Your task to perform on an android device: Empty the shopping cart on amazon. Search for razer deathadder on amazon, select the first entry, add it to the cart, then select checkout. Image 0: 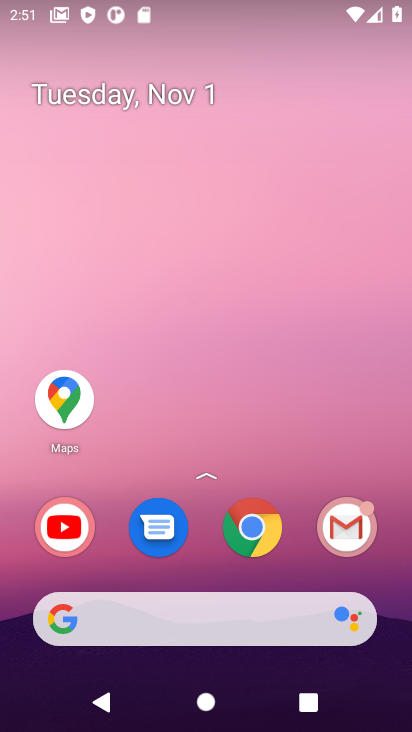
Step 0: click (219, 619)
Your task to perform on an android device: Empty the shopping cart on amazon. Search for razer deathadder on amazon, select the first entry, add it to the cart, then select checkout. Image 1: 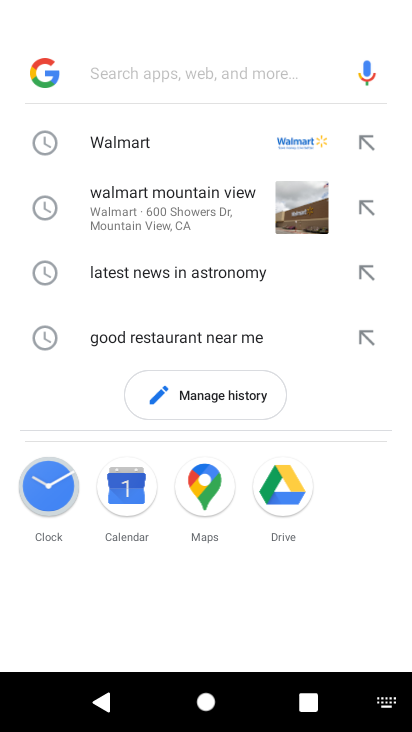
Step 1: type "amazon"
Your task to perform on an android device: Empty the shopping cart on amazon. Search for razer deathadder on amazon, select the first entry, add it to the cart, then select checkout. Image 2: 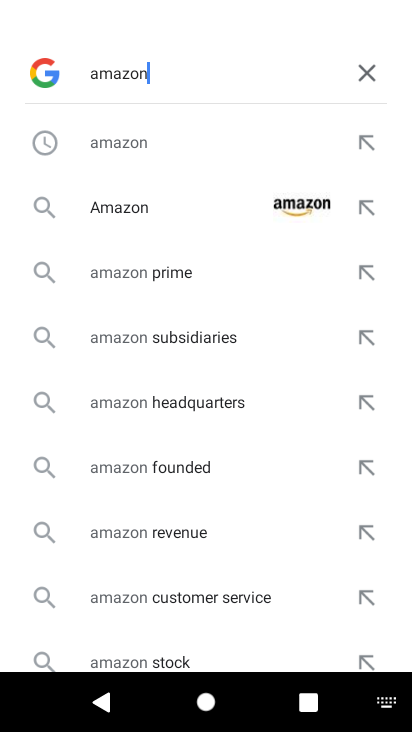
Step 2: click (229, 214)
Your task to perform on an android device: Empty the shopping cart on amazon. Search for razer deathadder on amazon, select the first entry, add it to the cart, then select checkout. Image 3: 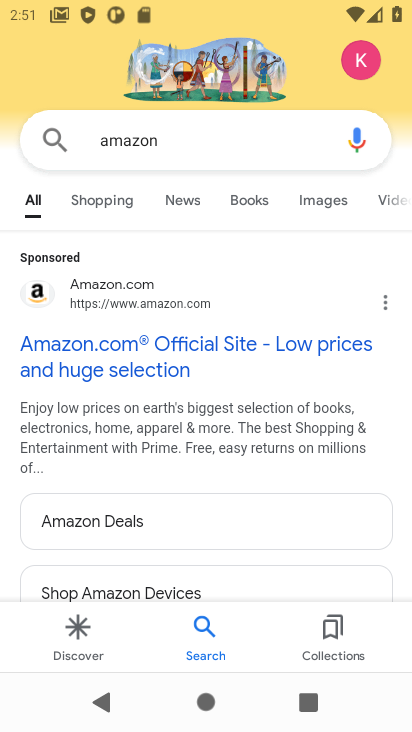
Step 3: click (109, 351)
Your task to perform on an android device: Empty the shopping cart on amazon. Search for razer deathadder on amazon, select the first entry, add it to the cart, then select checkout. Image 4: 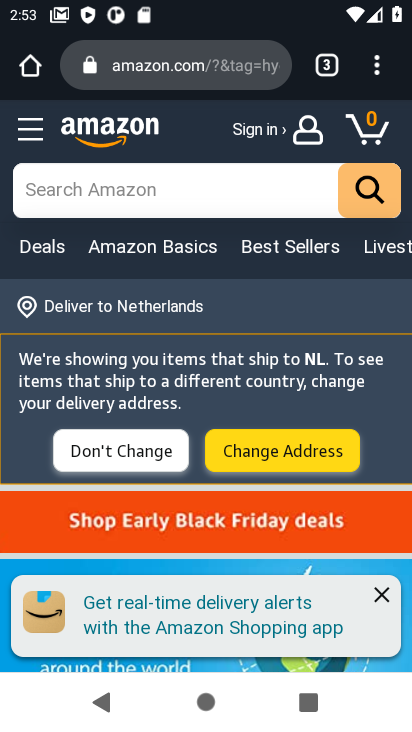
Step 4: click (199, 188)
Your task to perform on an android device: Empty the shopping cart on amazon. Search for razer deathadder on amazon, select the first entry, add it to the cart, then select checkout. Image 5: 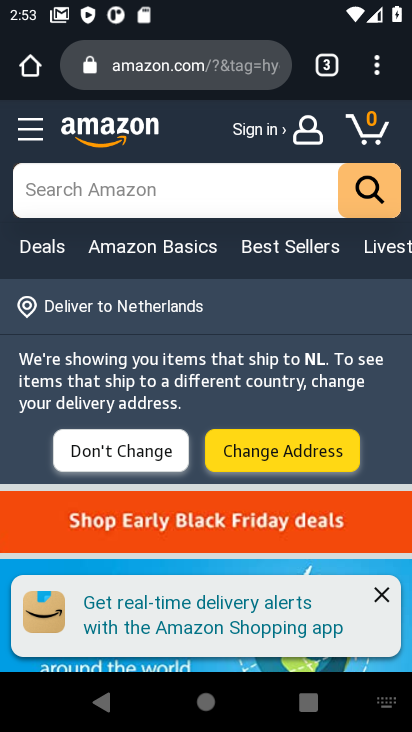
Step 5: type "razer deathadder"
Your task to perform on an android device: Empty the shopping cart on amazon. Search for razer deathadder on amazon, select the first entry, add it to the cart, then select checkout. Image 6: 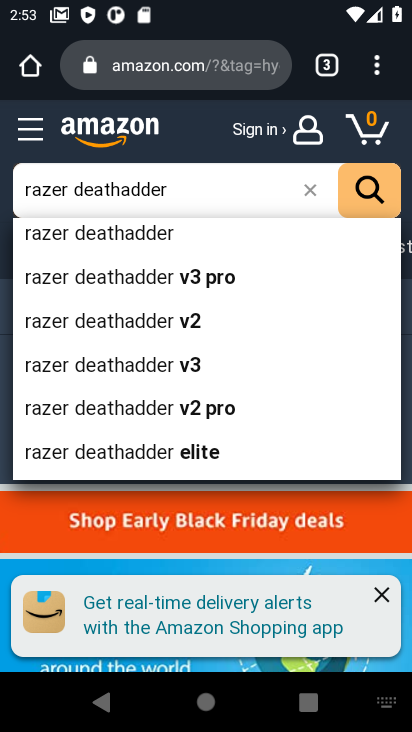
Step 6: click (119, 245)
Your task to perform on an android device: Empty the shopping cart on amazon. Search for razer deathadder on amazon, select the first entry, add it to the cart, then select checkout. Image 7: 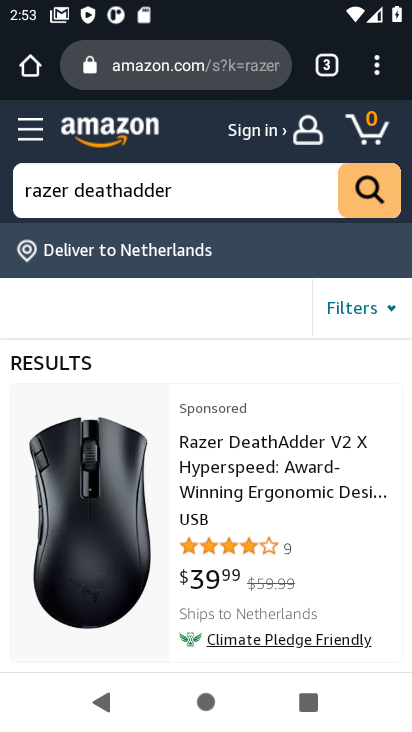
Step 7: drag from (290, 564) to (306, 395)
Your task to perform on an android device: Empty the shopping cart on amazon. Search for razer deathadder on amazon, select the first entry, add it to the cart, then select checkout. Image 8: 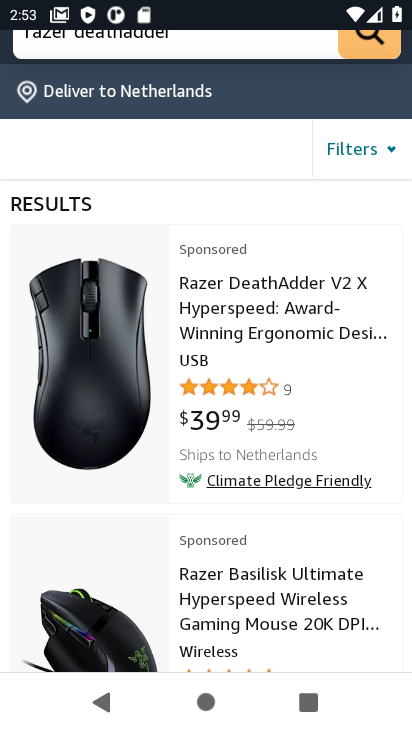
Step 8: click (258, 313)
Your task to perform on an android device: Empty the shopping cart on amazon. Search for razer deathadder on amazon, select the first entry, add it to the cart, then select checkout. Image 9: 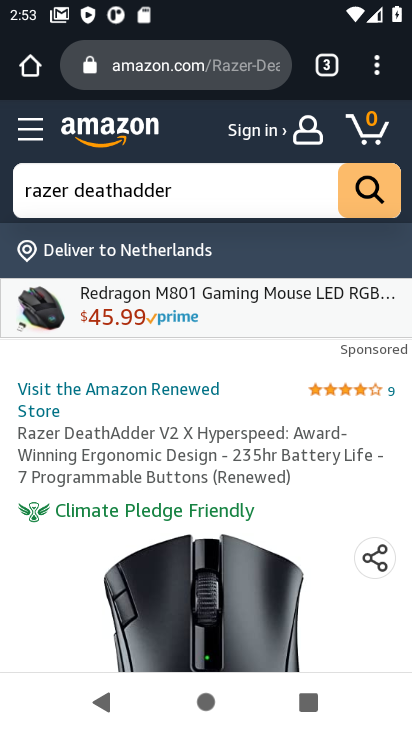
Step 9: drag from (241, 517) to (234, 356)
Your task to perform on an android device: Empty the shopping cart on amazon. Search for razer deathadder on amazon, select the first entry, add it to the cart, then select checkout. Image 10: 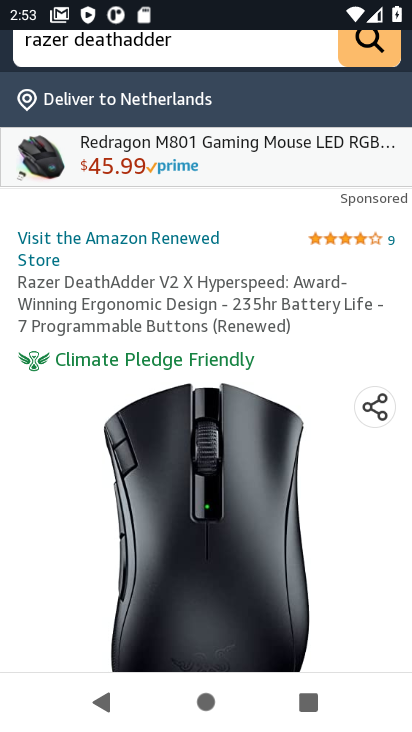
Step 10: drag from (290, 532) to (273, 350)
Your task to perform on an android device: Empty the shopping cart on amazon. Search for razer deathadder on amazon, select the first entry, add it to the cart, then select checkout. Image 11: 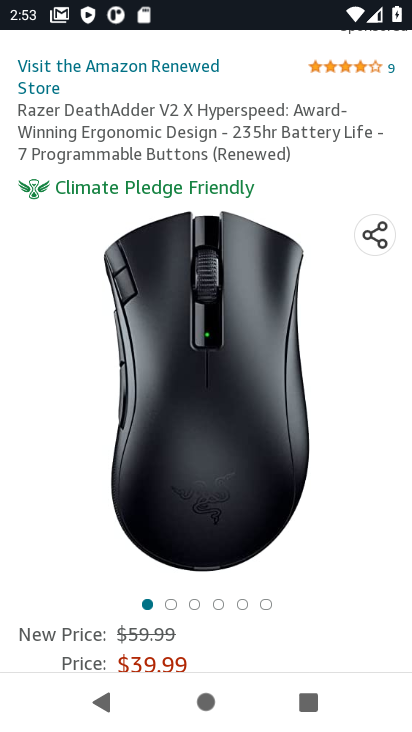
Step 11: drag from (273, 537) to (251, 275)
Your task to perform on an android device: Empty the shopping cart on amazon. Search for razer deathadder on amazon, select the first entry, add it to the cart, then select checkout. Image 12: 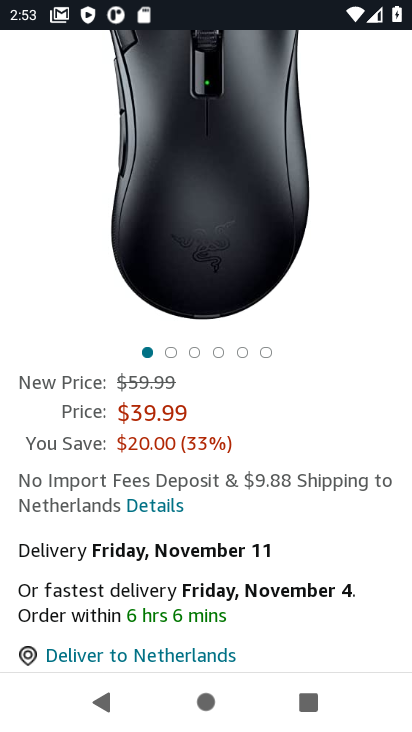
Step 12: drag from (251, 522) to (251, 322)
Your task to perform on an android device: Empty the shopping cart on amazon. Search for razer deathadder on amazon, select the first entry, add it to the cart, then select checkout. Image 13: 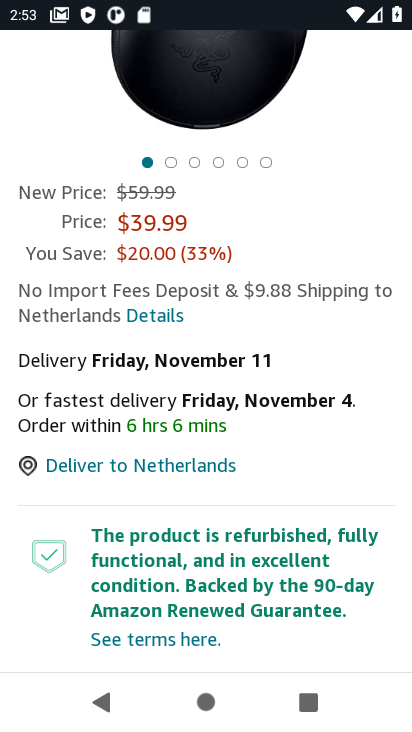
Step 13: drag from (242, 493) to (242, 349)
Your task to perform on an android device: Empty the shopping cart on amazon. Search for razer deathadder on amazon, select the first entry, add it to the cart, then select checkout. Image 14: 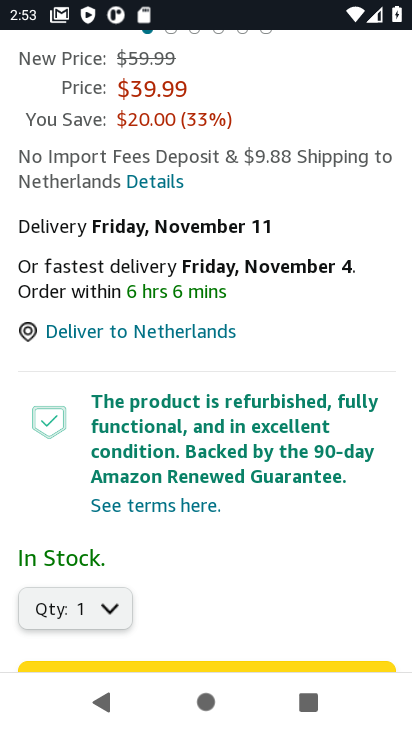
Step 14: drag from (242, 525) to (242, 362)
Your task to perform on an android device: Empty the shopping cart on amazon. Search for razer deathadder on amazon, select the first entry, add it to the cart, then select checkout. Image 15: 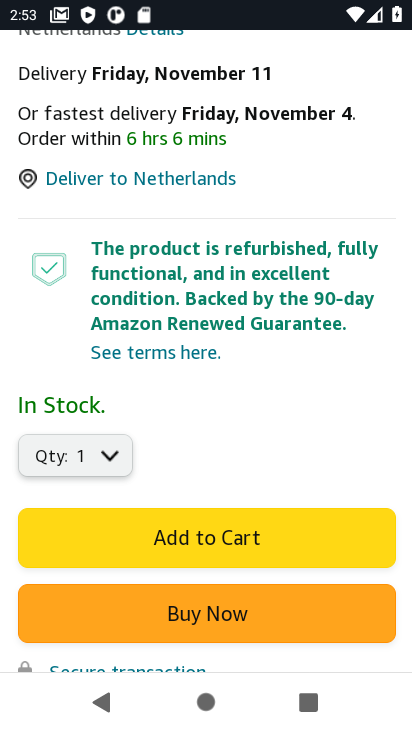
Step 15: click (215, 537)
Your task to perform on an android device: Empty the shopping cart on amazon. Search for razer deathadder on amazon, select the first entry, add it to the cart, then select checkout. Image 16: 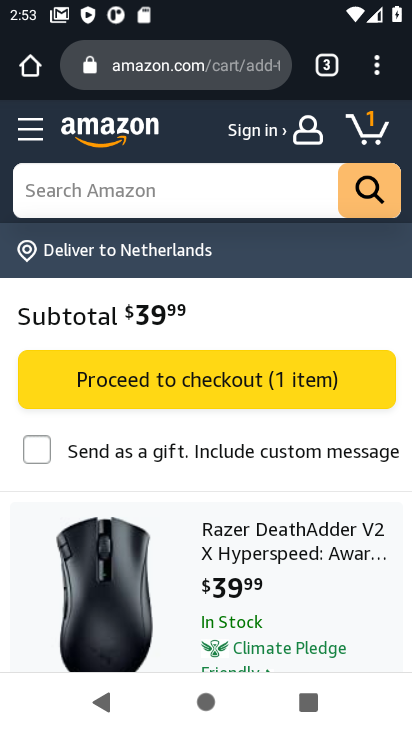
Step 16: click (215, 378)
Your task to perform on an android device: Empty the shopping cart on amazon. Search for razer deathadder on amazon, select the first entry, add it to the cart, then select checkout. Image 17: 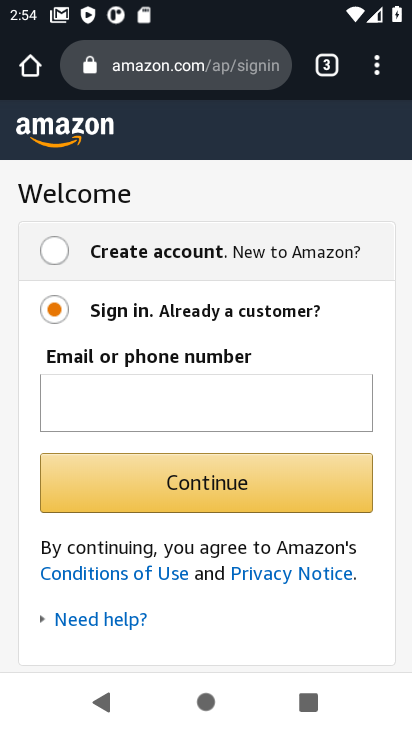
Step 17: task complete